Your task to perform on an android device: turn pop-ups off in chrome Image 0: 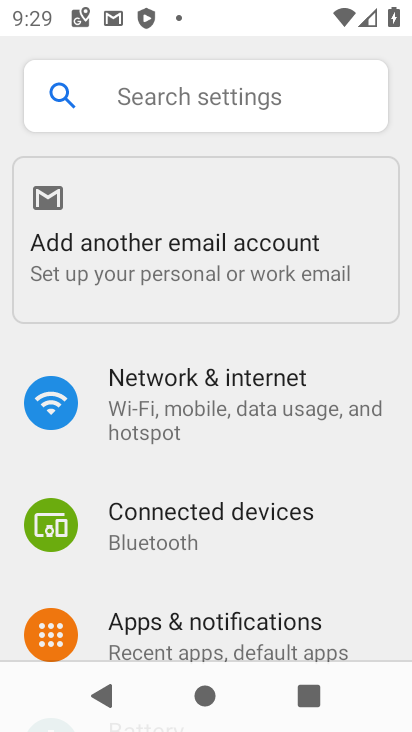
Step 0: press back button
Your task to perform on an android device: turn pop-ups off in chrome Image 1: 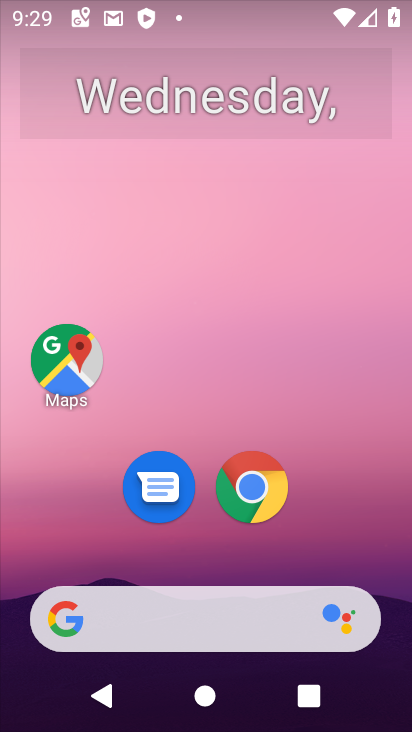
Step 1: click (251, 468)
Your task to perform on an android device: turn pop-ups off in chrome Image 2: 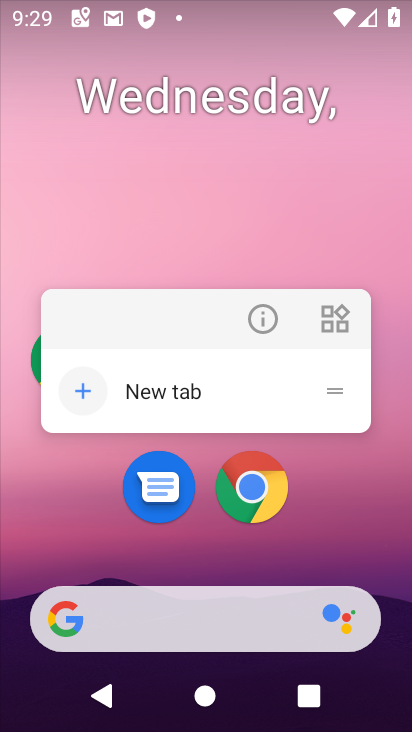
Step 2: click (244, 502)
Your task to perform on an android device: turn pop-ups off in chrome Image 3: 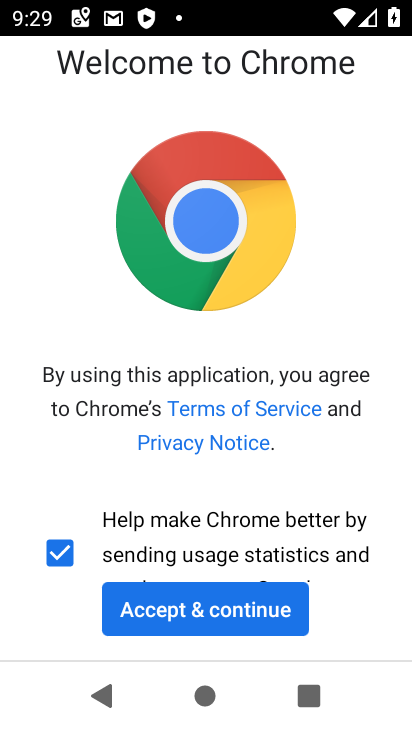
Step 3: click (176, 599)
Your task to perform on an android device: turn pop-ups off in chrome Image 4: 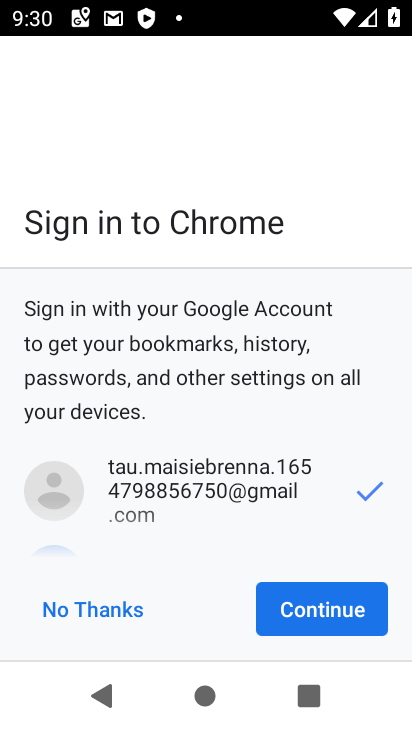
Step 4: click (328, 601)
Your task to perform on an android device: turn pop-ups off in chrome Image 5: 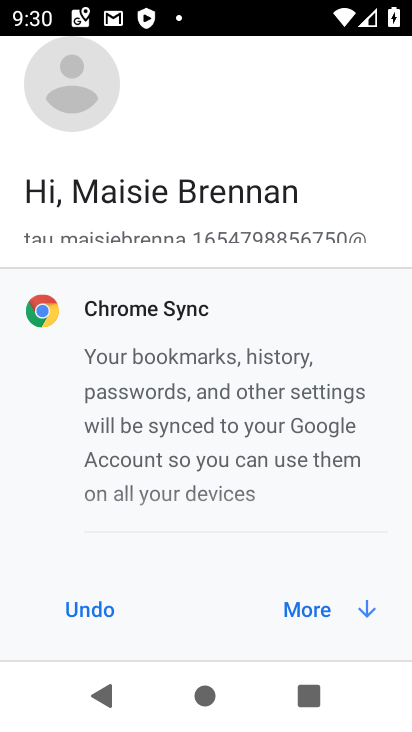
Step 5: click (328, 604)
Your task to perform on an android device: turn pop-ups off in chrome Image 6: 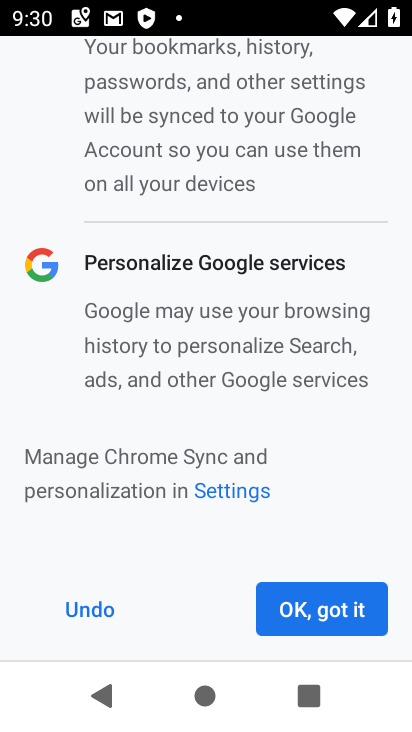
Step 6: click (314, 621)
Your task to perform on an android device: turn pop-ups off in chrome Image 7: 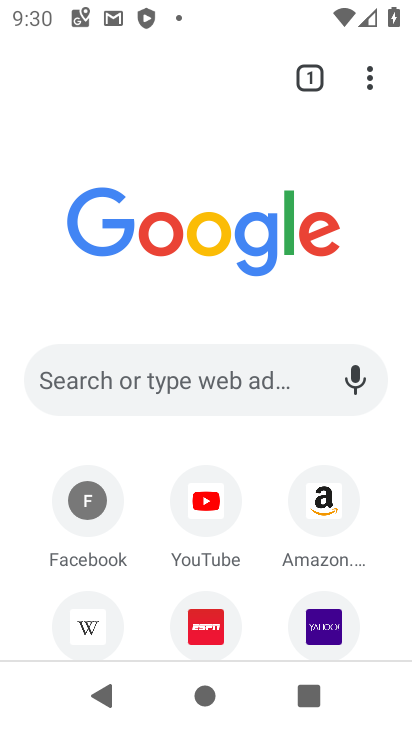
Step 7: drag from (373, 63) to (132, 554)
Your task to perform on an android device: turn pop-ups off in chrome Image 8: 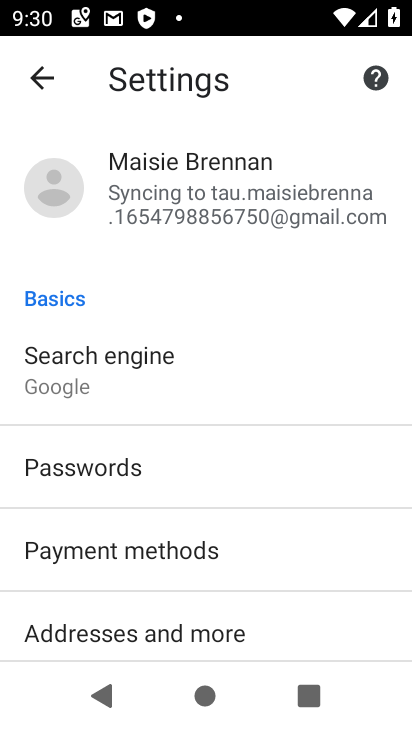
Step 8: drag from (177, 435) to (258, 26)
Your task to perform on an android device: turn pop-ups off in chrome Image 9: 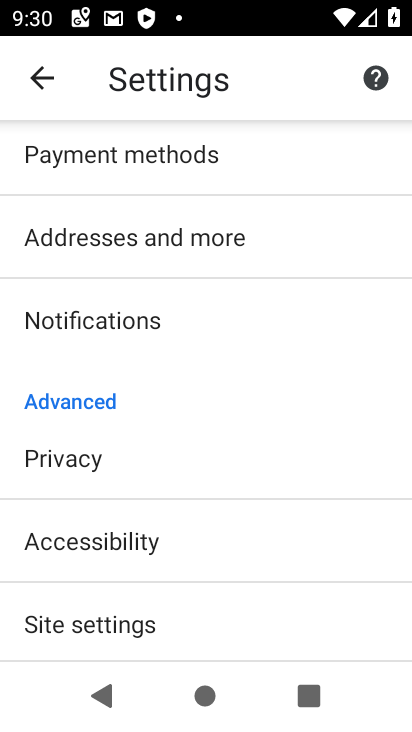
Step 9: click (114, 622)
Your task to perform on an android device: turn pop-ups off in chrome Image 10: 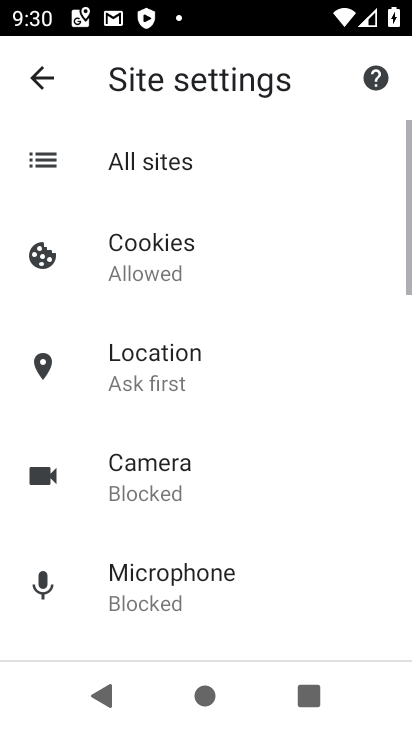
Step 10: drag from (169, 553) to (278, 60)
Your task to perform on an android device: turn pop-ups off in chrome Image 11: 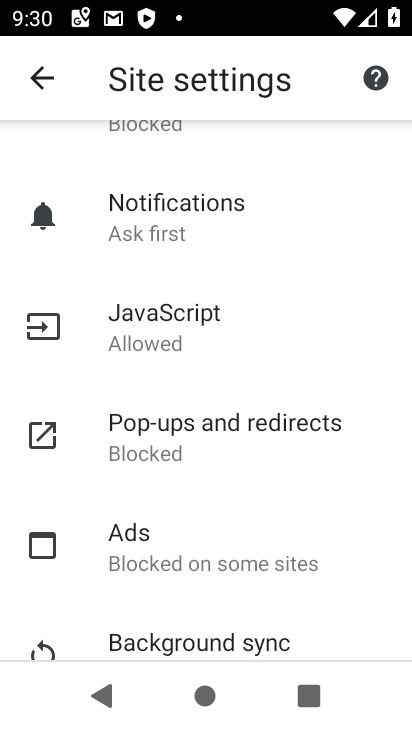
Step 11: click (171, 413)
Your task to perform on an android device: turn pop-ups off in chrome Image 12: 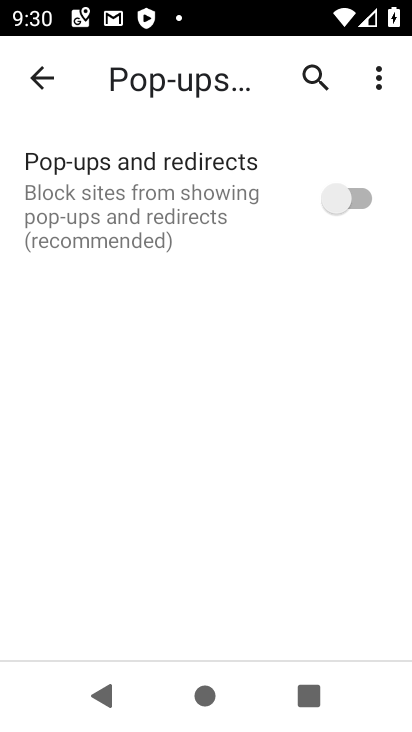
Step 12: task complete